Your task to perform on an android device: Go to location settings Image 0: 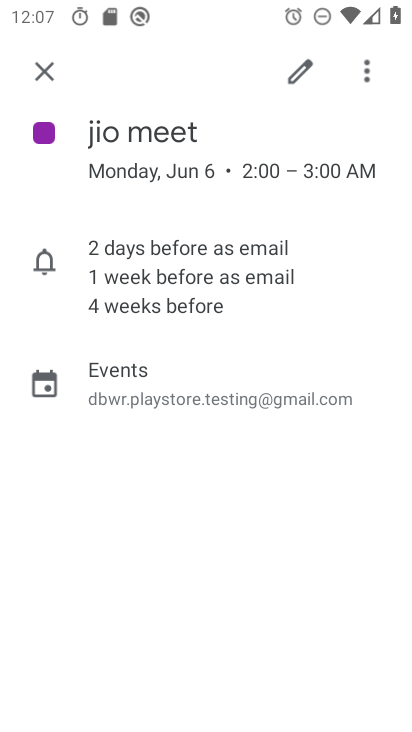
Step 0: press home button
Your task to perform on an android device: Go to location settings Image 1: 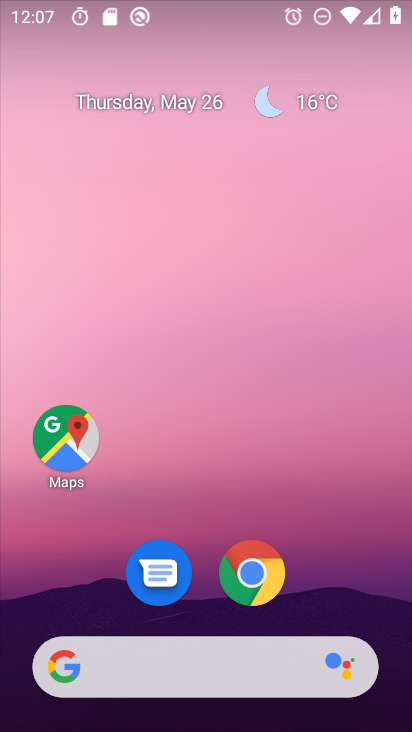
Step 1: drag from (339, 620) to (363, 39)
Your task to perform on an android device: Go to location settings Image 2: 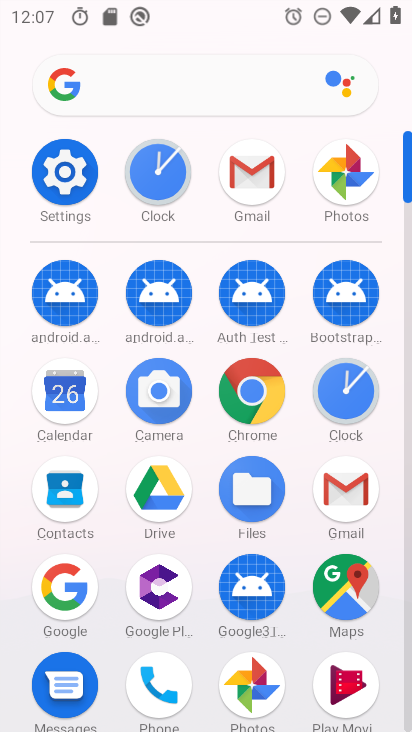
Step 2: click (60, 178)
Your task to perform on an android device: Go to location settings Image 3: 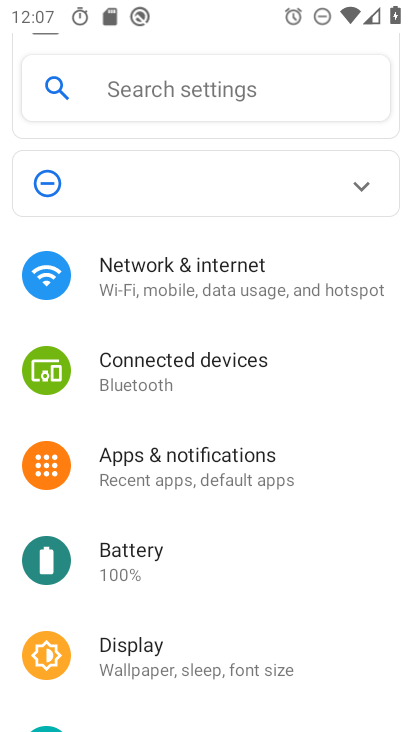
Step 3: drag from (319, 534) to (307, 116)
Your task to perform on an android device: Go to location settings Image 4: 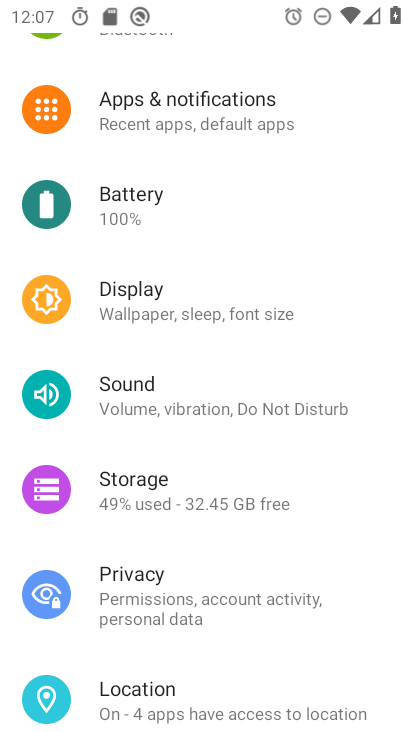
Step 4: drag from (269, 523) to (272, 242)
Your task to perform on an android device: Go to location settings Image 5: 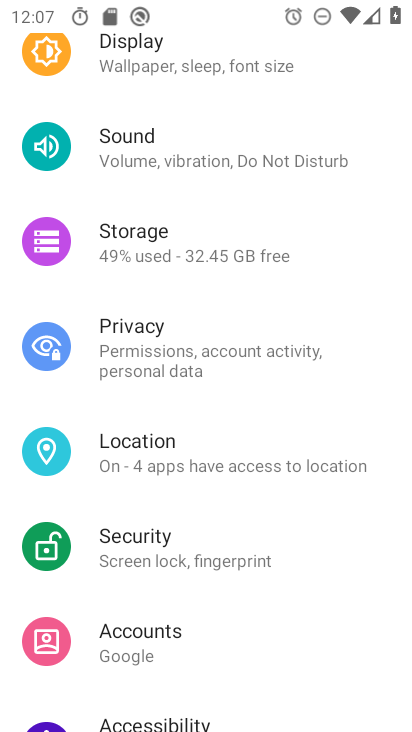
Step 5: click (132, 463)
Your task to perform on an android device: Go to location settings Image 6: 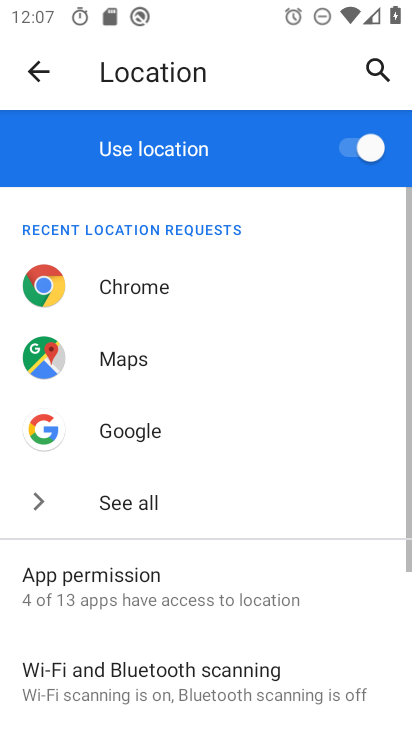
Step 6: task complete